Your task to perform on an android device: change the clock display to show seconds Image 0: 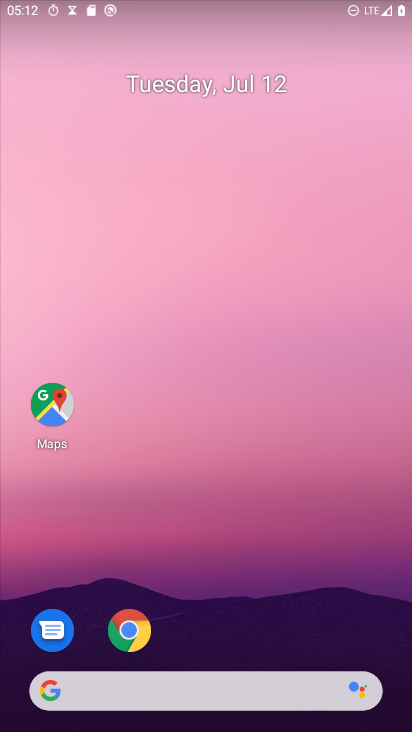
Step 0: drag from (173, 626) to (232, 51)
Your task to perform on an android device: change the clock display to show seconds Image 1: 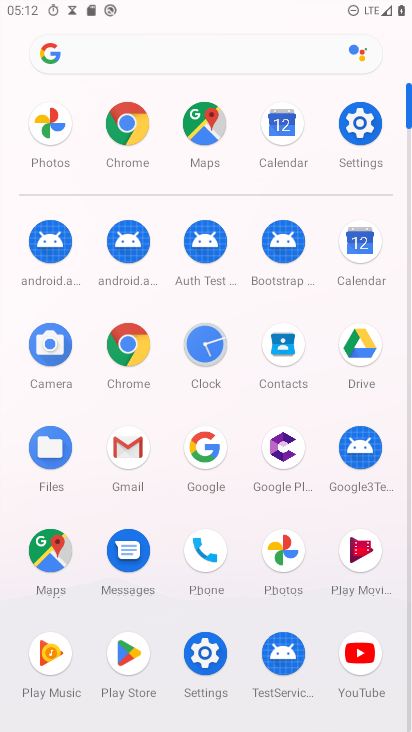
Step 1: click (210, 357)
Your task to perform on an android device: change the clock display to show seconds Image 2: 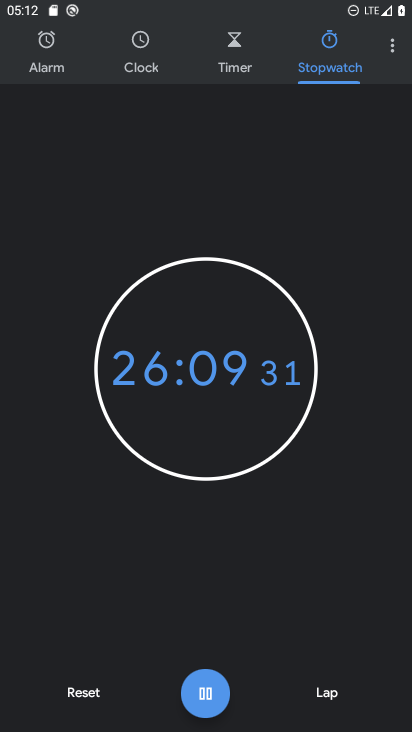
Step 2: drag from (391, 48) to (305, 97)
Your task to perform on an android device: change the clock display to show seconds Image 3: 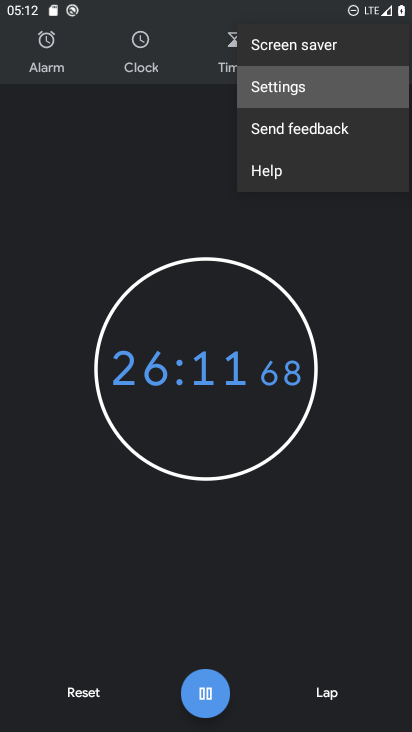
Step 3: click (305, 97)
Your task to perform on an android device: change the clock display to show seconds Image 4: 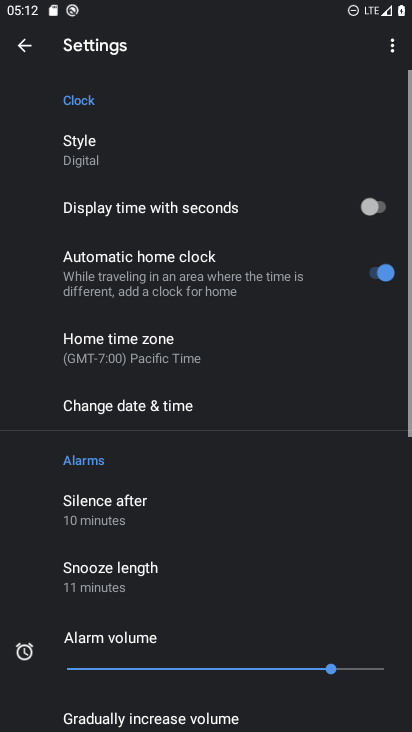
Step 4: click (378, 205)
Your task to perform on an android device: change the clock display to show seconds Image 5: 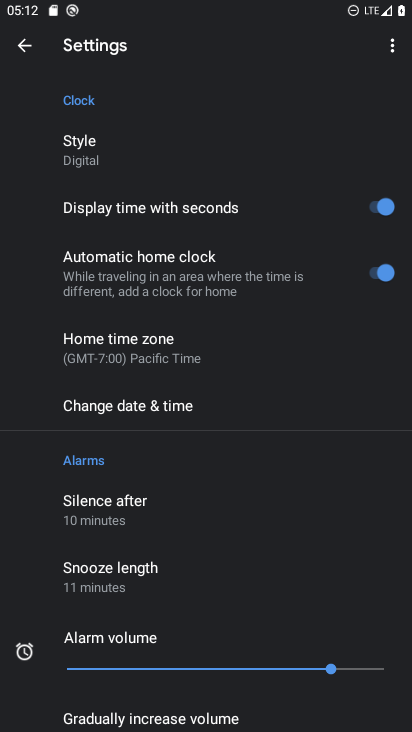
Step 5: task complete